Your task to perform on an android device: Open my contact list Image 0: 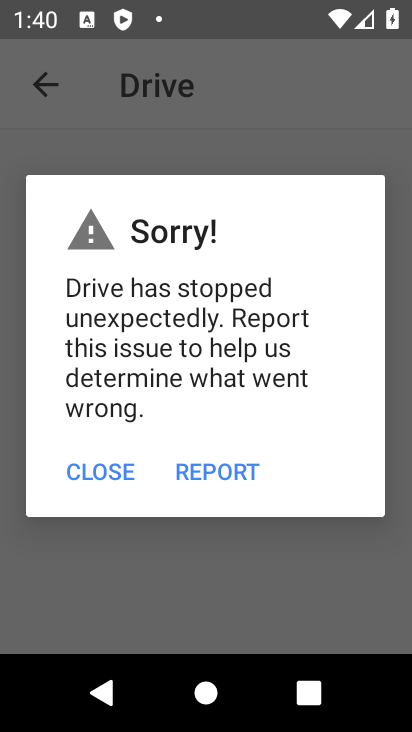
Step 0: press home button
Your task to perform on an android device: Open my contact list Image 1: 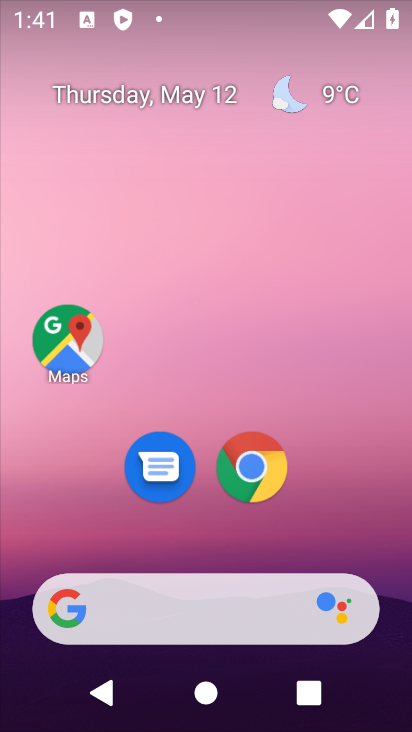
Step 1: drag from (337, 542) to (345, 179)
Your task to perform on an android device: Open my contact list Image 2: 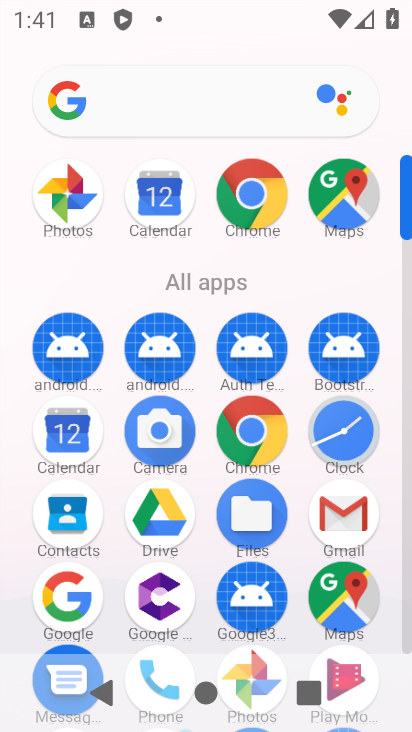
Step 2: drag from (200, 550) to (242, 318)
Your task to perform on an android device: Open my contact list Image 3: 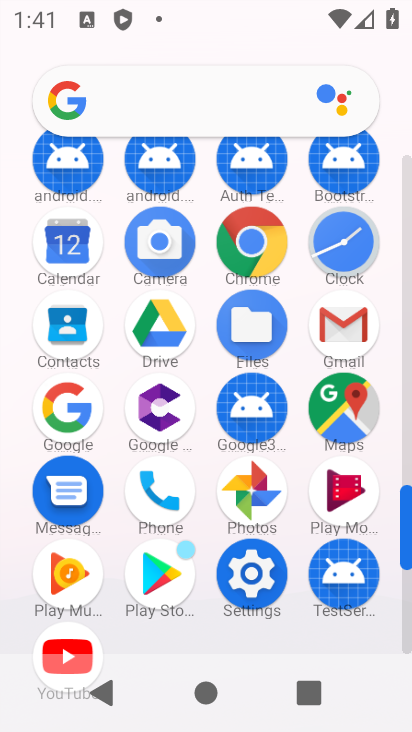
Step 3: click (150, 494)
Your task to perform on an android device: Open my contact list Image 4: 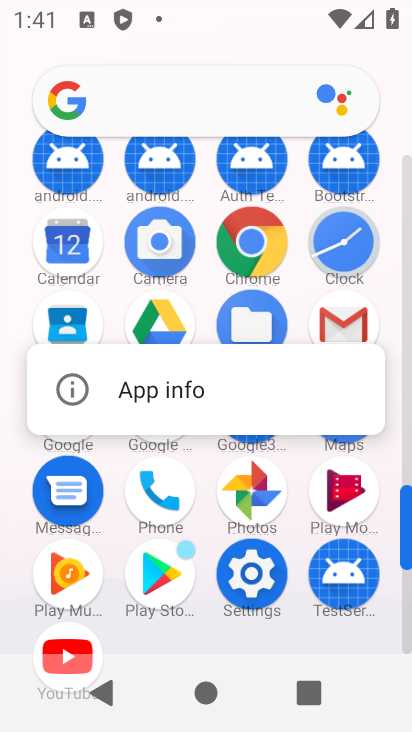
Step 4: click (166, 488)
Your task to perform on an android device: Open my contact list Image 5: 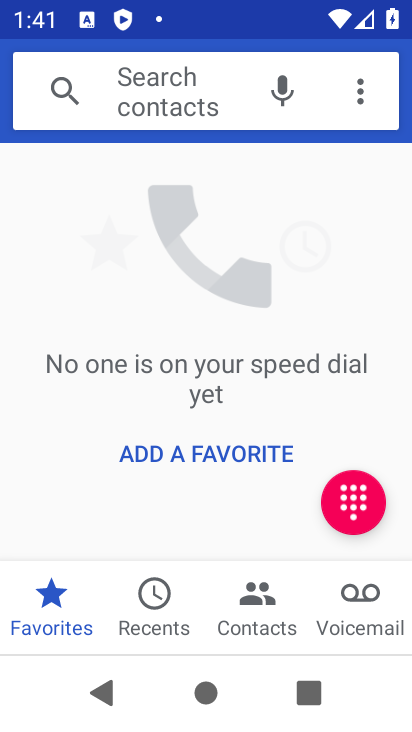
Step 5: click (267, 592)
Your task to perform on an android device: Open my contact list Image 6: 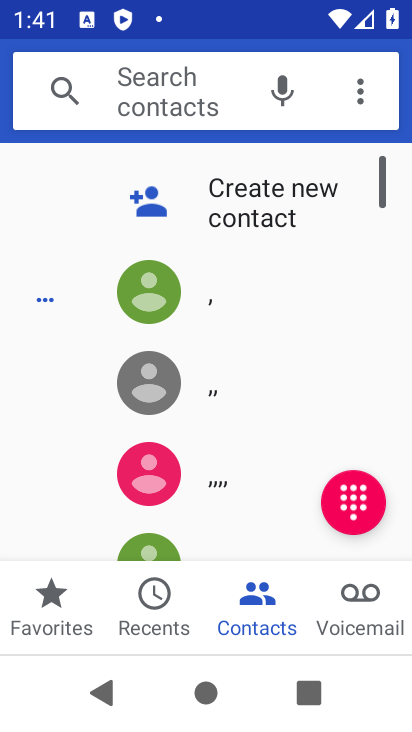
Step 6: task complete